Your task to perform on an android device: Go to Google maps Image 0: 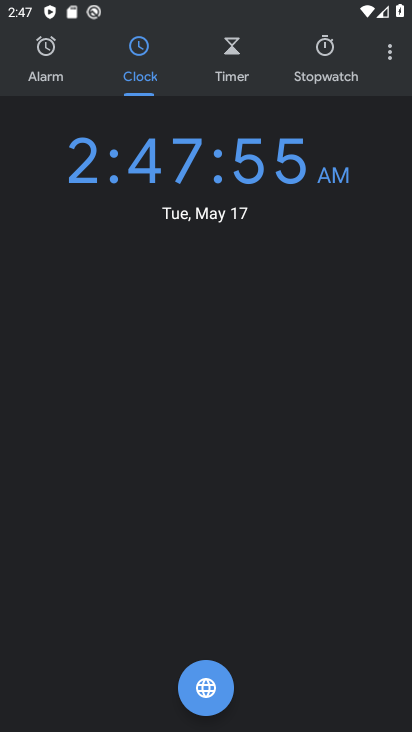
Step 0: press home button
Your task to perform on an android device: Go to Google maps Image 1: 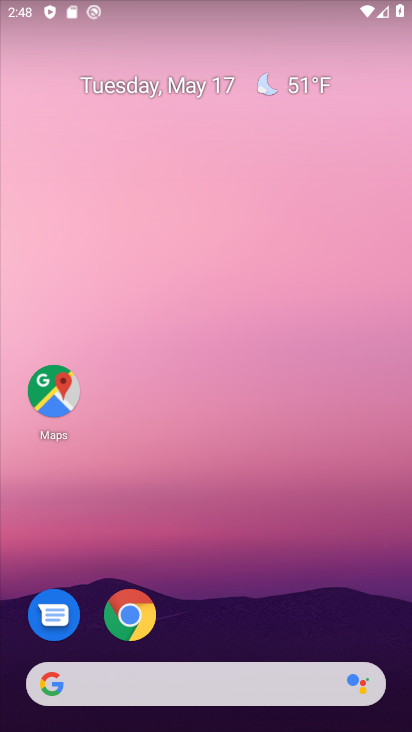
Step 1: drag from (229, 641) to (225, 12)
Your task to perform on an android device: Go to Google maps Image 2: 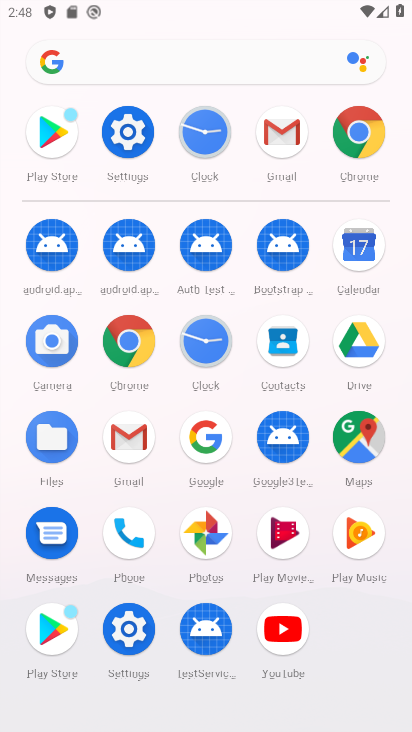
Step 2: click (361, 431)
Your task to perform on an android device: Go to Google maps Image 3: 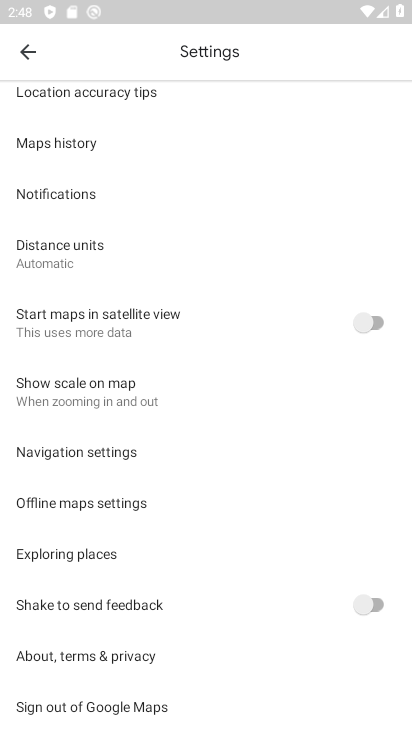
Step 3: click (30, 53)
Your task to perform on an android device: Go to Google maps Image 4: 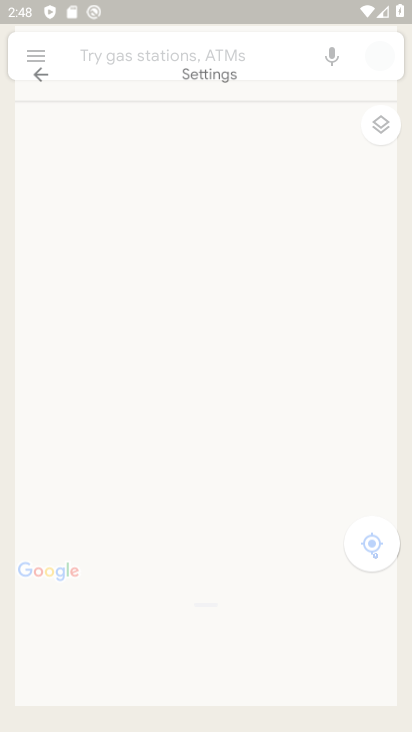
Step 4: click (32, 53)
Your task to perform on an android device: Go to Google maps Image 5: 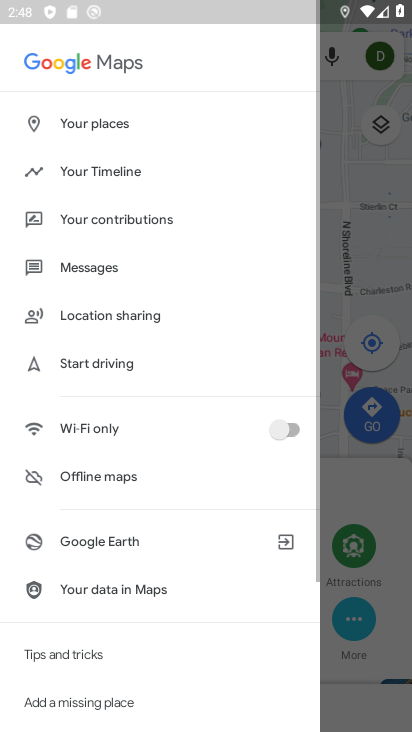
Step 5: task complete